Your task to perform on an android device: Open Google Chrome Image 0: 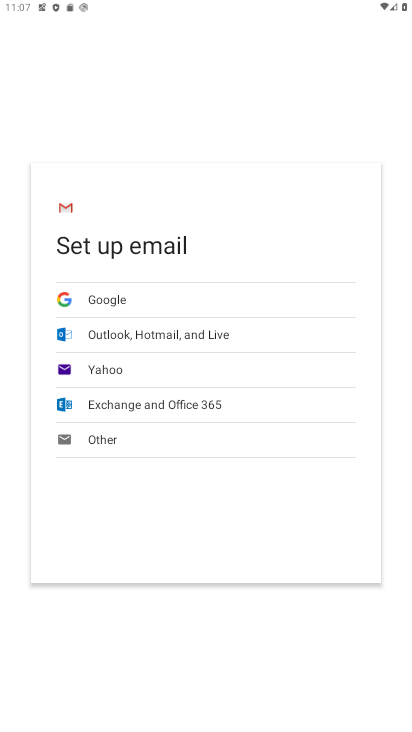
Step 0: press back button
Your task to perform on an android device: Open Google Chrome Image 1: 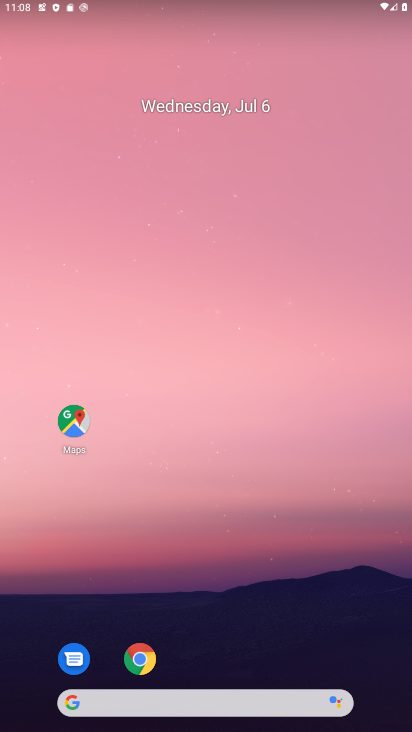
Step 1: click (139, 658)
Your task to perform on an android device: Open Google Chrome Image 2: 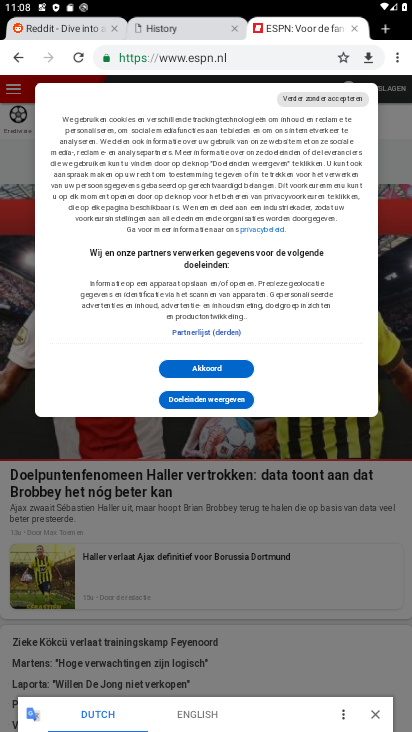
Step 2: task complete